Your task to perform on an android device: turn off translation in the chrome app Image 0: 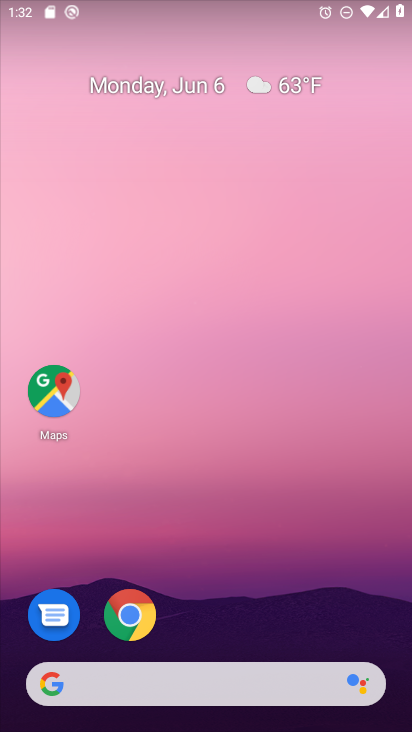
Step 0: click (124, 613)
Your task to perform on an android device: turn off translation in the chrome app Image 1: 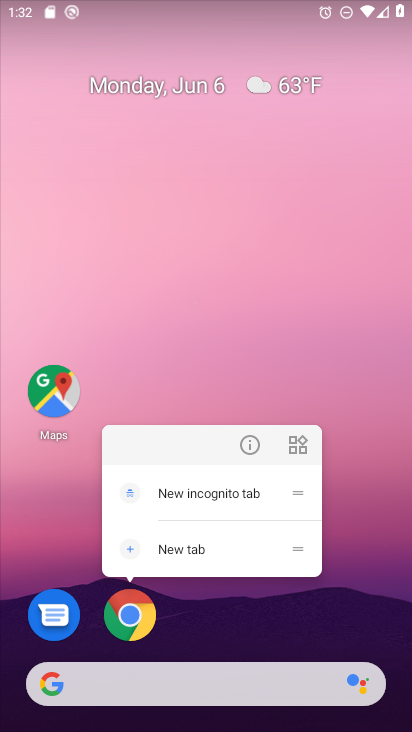
Step 1: click (124, 613)
Your task to perform on an android device: turn off translation in the chrome app Image 2: 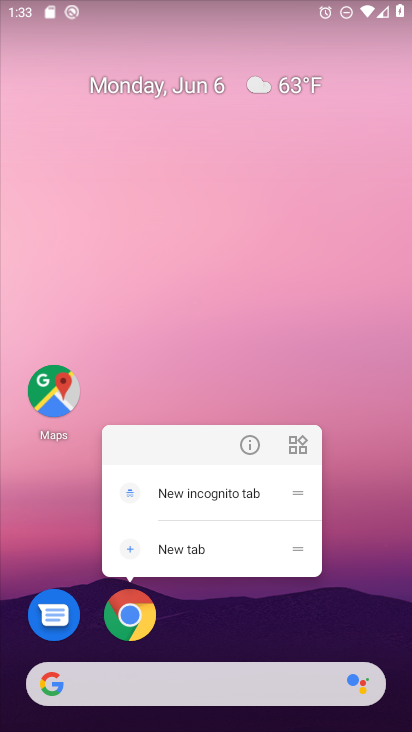
Step 2: click (124, 613)
Your task to perform on an android device: turn off translation in the chrome app Image 3: 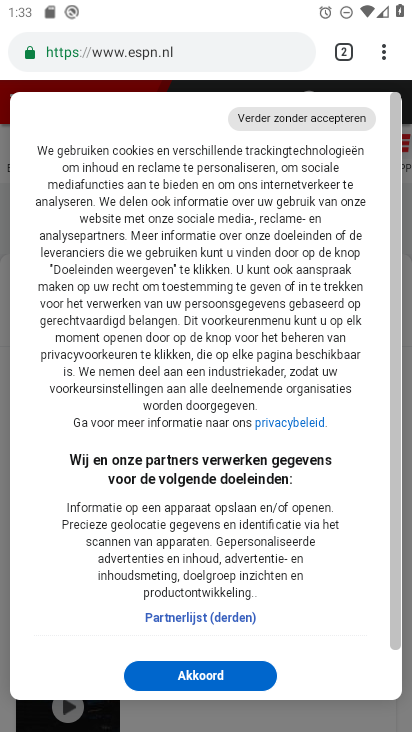
Step 3: click (378, 66)
Your task to perform on an android device: turn off translation in the chrome app Image 4: 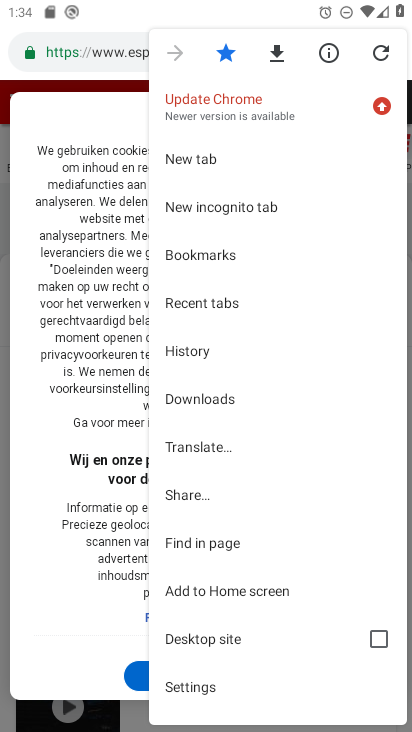
Step 4: click (193, 693)
Your task to perform on an android device: turn off translation in the chrome app Image 5: 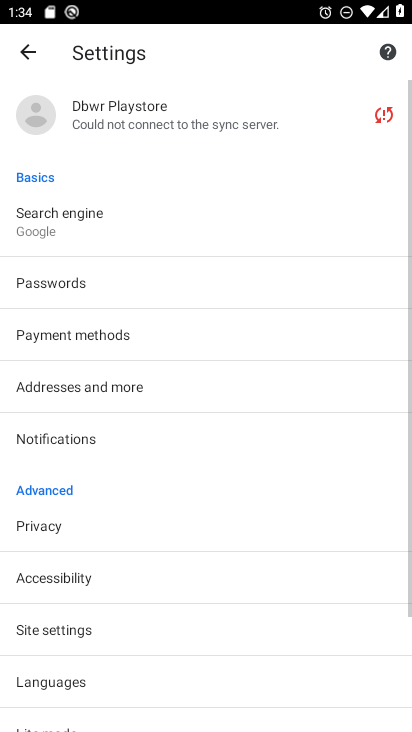
Step 5: drag from (184, 650) to (134, 370)
Your task to perform on an android device: turn off translation in the chrome app Image 6: 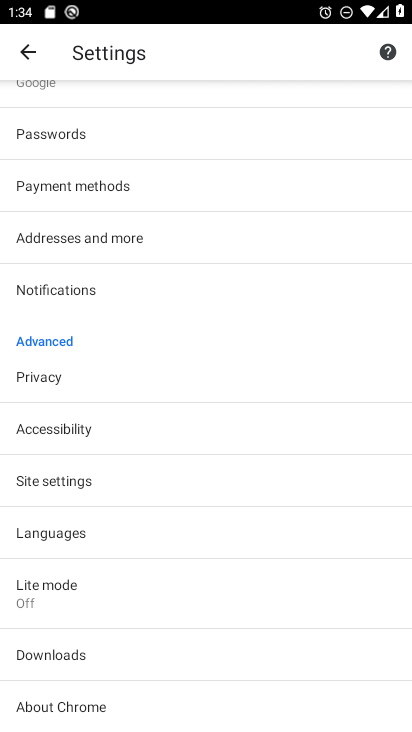
Step 6: click (93, 518)
Your task to perform on an android device: turn off translation in the chrome app Image 7: 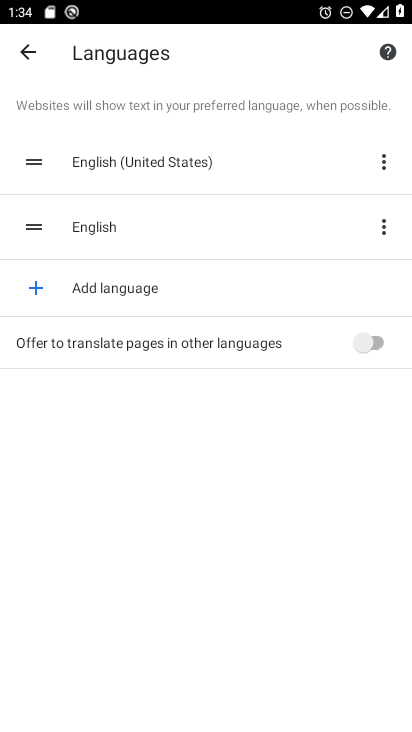
Step 7: task complete